Your task to perform on an android device: turn on priority inbox in the gmail app Image 0: 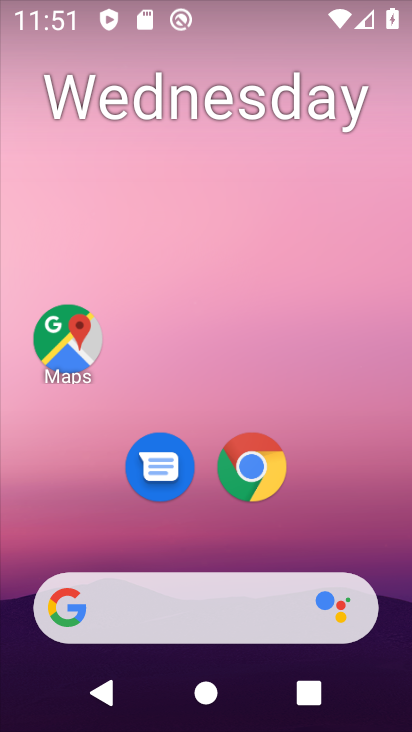
Step 0: drag from (366, 522) to (283, 55)
Your task to perform on an android device: turn on priority inbox in the gmail app Image 1: 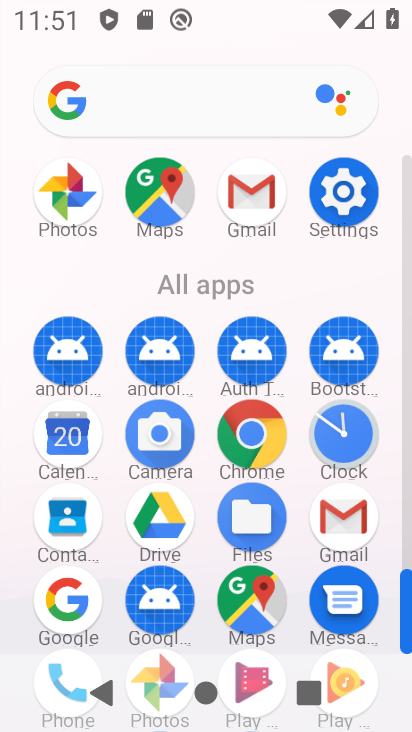
Step 1: click (350, 517)
Your task to perform on an android device: turn on priority inbox in the gmail app Image 2: 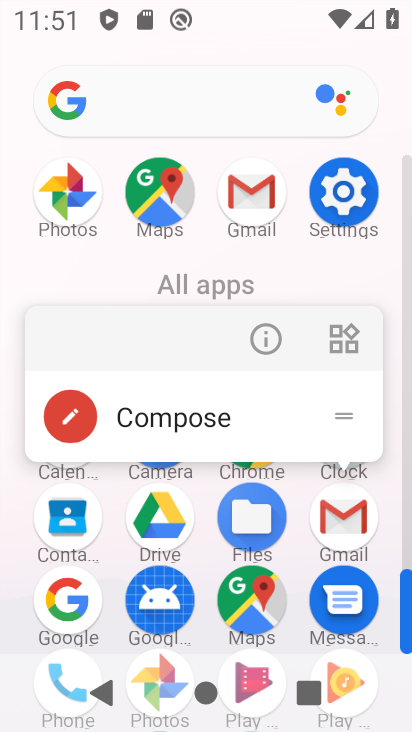
Step 2: click (343, 533)
Your task to perform on an android device: turn on priority inbox in the gmail app Image 3: 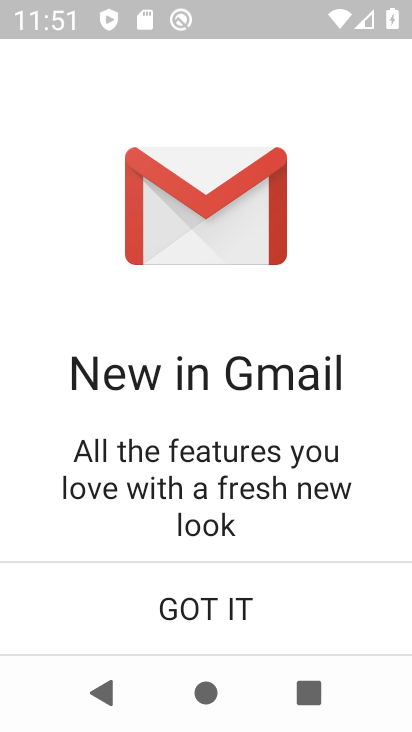
Step 3: click (271, 592)
Your task to perform on an android device: turn on priority inbox in the gmail app Image 4: 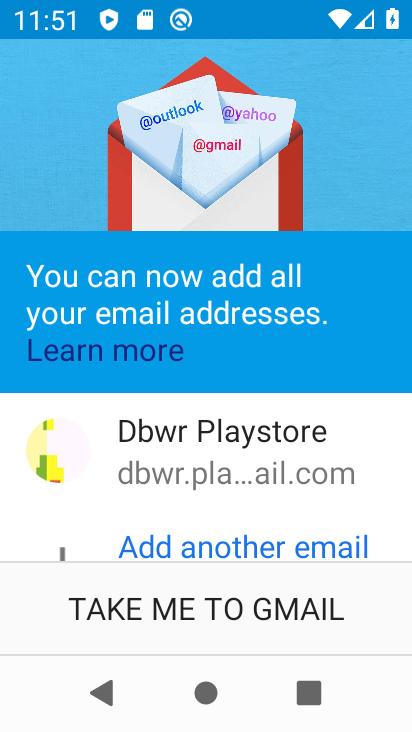
Step 4: click (279, 610)
Your task to perform on an android device: turn on priority inbox in the gmail app Image 5: 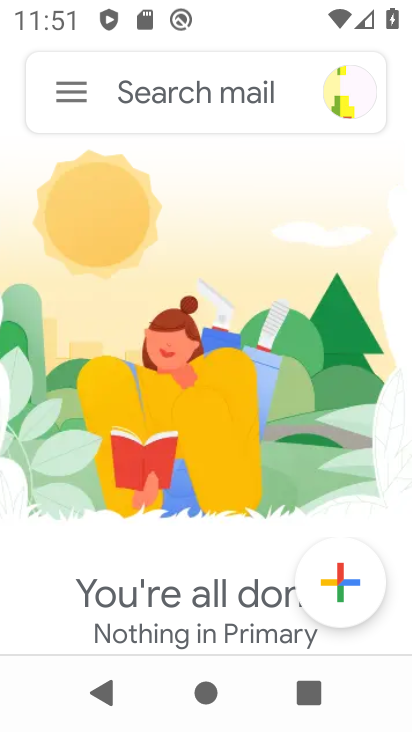
Step 5: click (61, 76)
Your task to perform on an android device: turn on priority inbox in the gmail app Image 6: 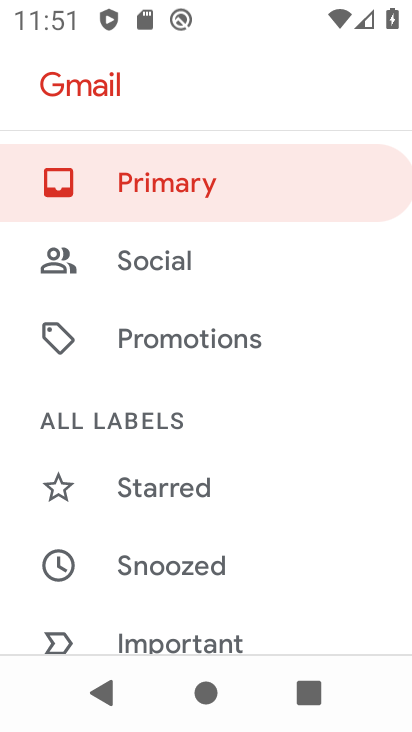
Step 6: drag from (127, 582) to (117, 31)
Your task to perform on an android device: turn on priority inbox in the gmail app Image 7: 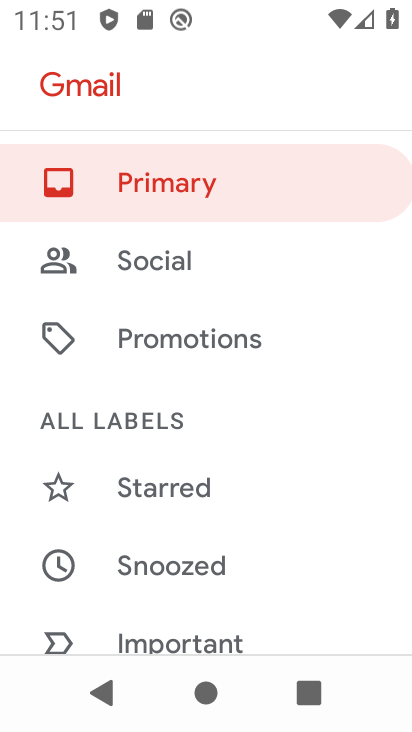
Step 7: drag from (146, 528) to (173, 132)
Your task to perform on an android device: turn on priority inbox in the gmail app Image 8: 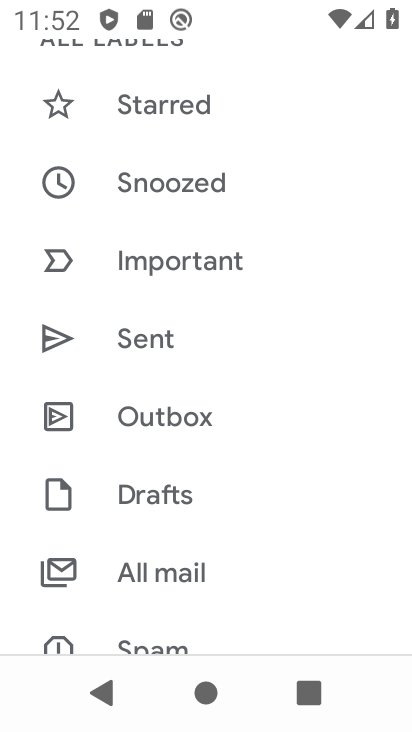
Step 8: drag from (187, 609) to (241, 152)
Your task to perform on an android device: turn on priority inbox in the gmail app Image 9: 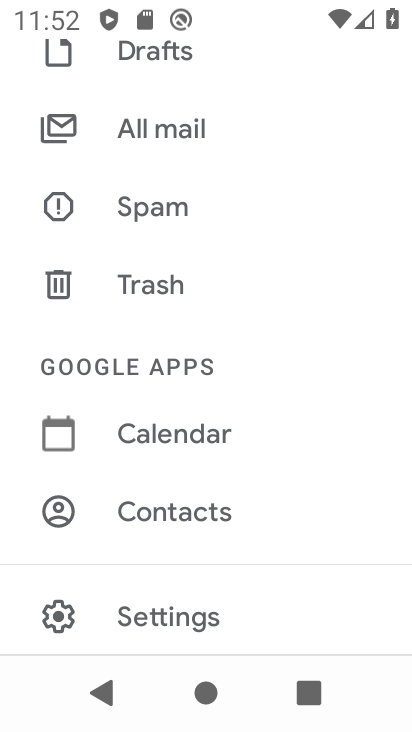
Step 9: drag from (236, 586) to (210, 279)
Your task to perform on an android device: turn on priority inbox in the gmail app Image 10: 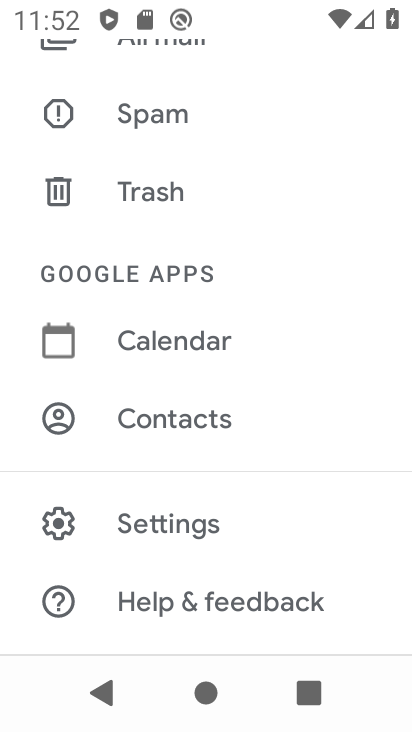
Step 10: click (114, 519)
Your task to perform on an android device: turn on priority inbox in the gmail app Image 11: 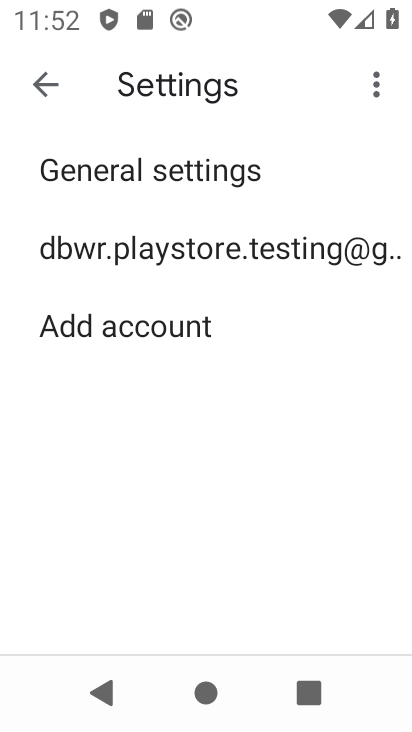
Step 11: click (245, 240)
Your task to perform on an android device: turn on priority inbox in the gmail app Image 12: 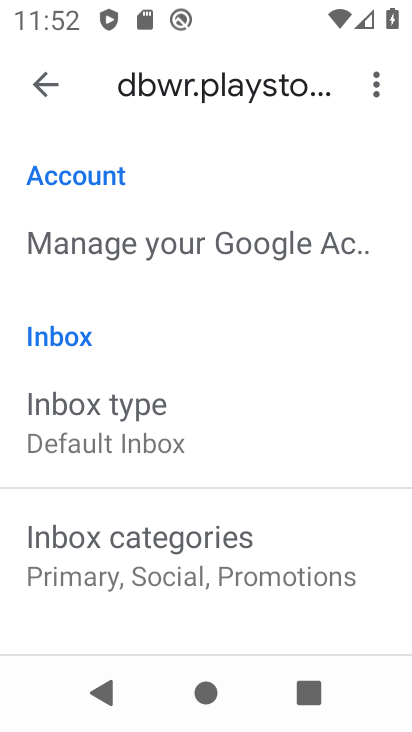
Step 12: click (181, 418)
Your task to perform on an android device: turn on priority inbox in the gmail app Image 13: 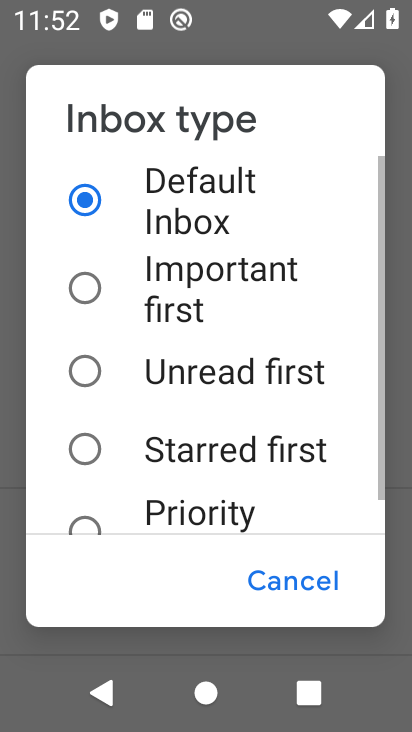
Step 13: click (190, 509)
Your task to perform on an android device: turn on priority inbox in the gmail app Image 14: 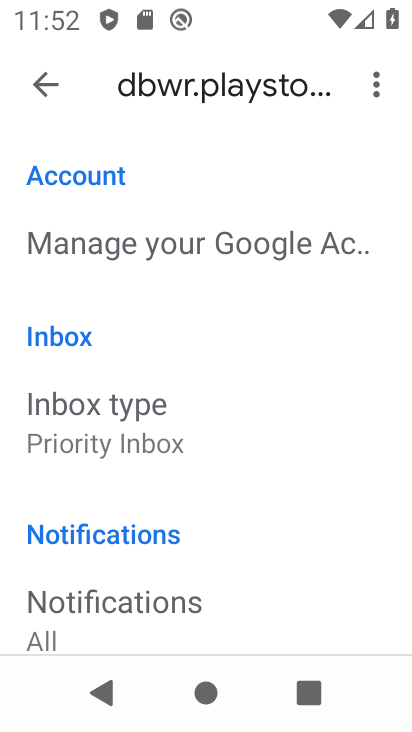
Step 14: task complete